Your task to perform on an android device: turn on wifi Image 0: 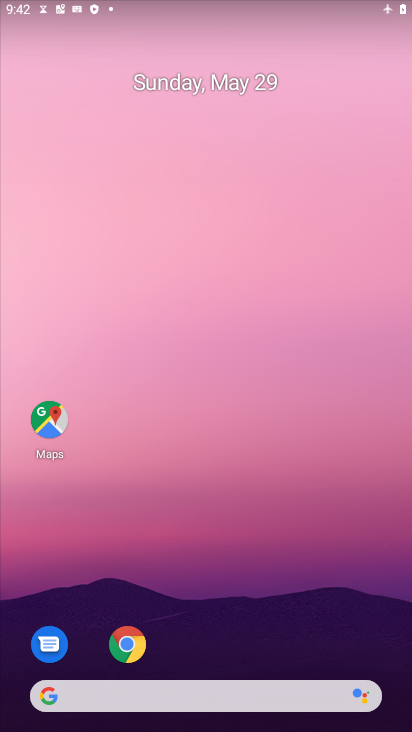
Step 0: drag from (245, 627) to (206, 257)
Your task to perform on an android device: turn on wifi Image 1: 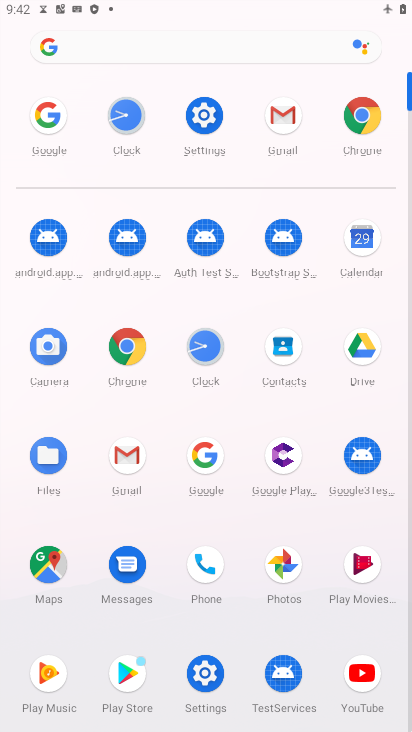
Step 1: click (213, 109)
Your task to perform on an android device: turn on wifi Image 2: 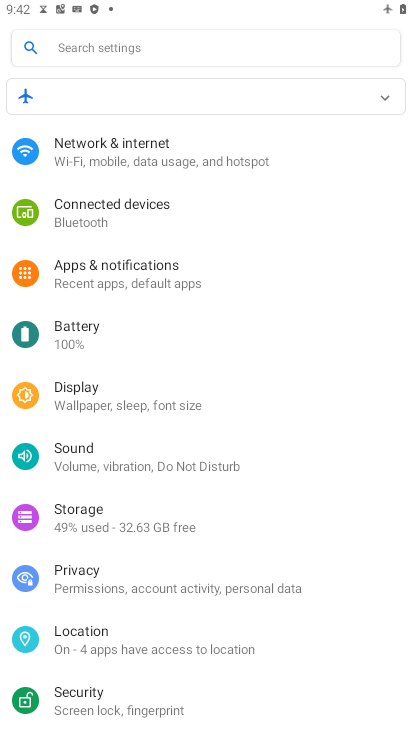
Step 2: click (189, 151)
Your task to perform on an android device: turn on wifi Image 3: 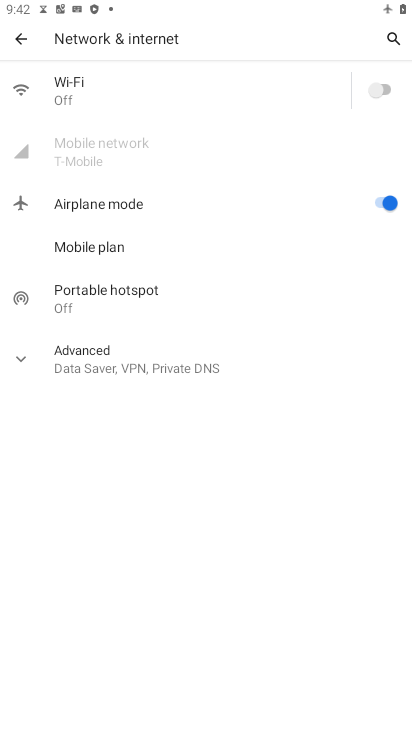
Step 3: click (376, 88)
Your task to perform on an android device: turn on wifi Image 4: 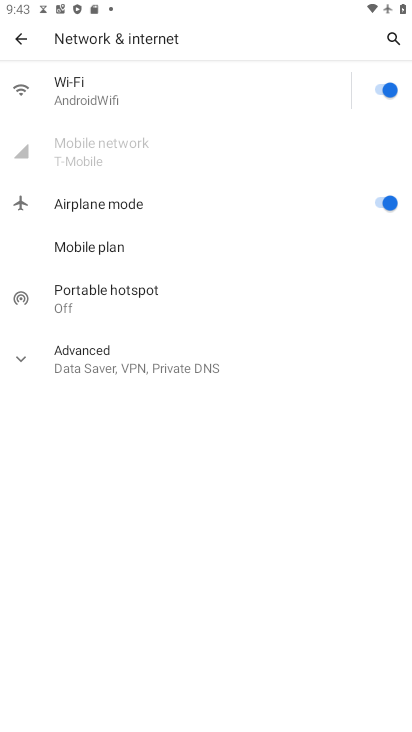
Step 4: task complete